Your task to perform on an android device: turn on airplane mode Image 0: 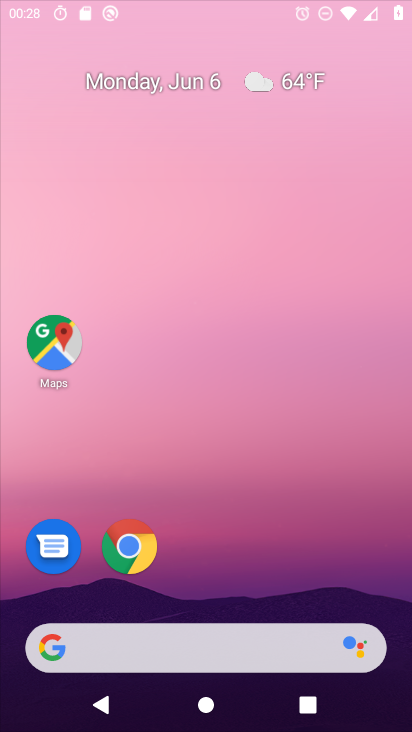
Step 0: click (312, 66)
Your task to perform on an android device: turn on airplane mode Image 1: 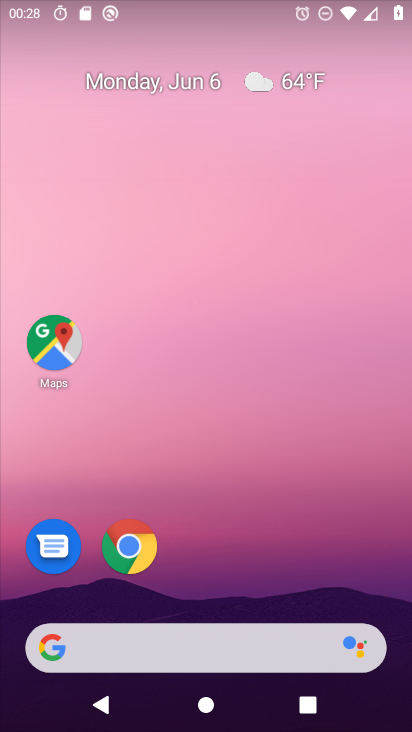
Step 1: press home button
Your task to perform on an android device: turn on airplane mode Image 2: 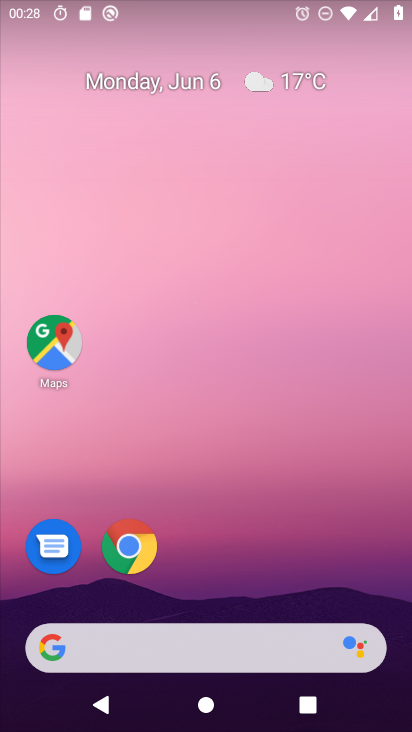
Step 2: drag from (196, 487) to (273, 141)
Your task to perform on an android device: turn on airplane mode Image 3: 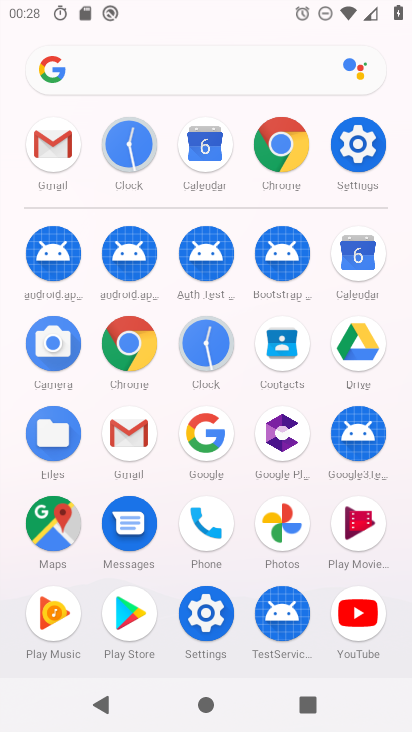
Step 3: click (350, 141)
Your task to perform on an android device: turn on airplane mode Image 4: 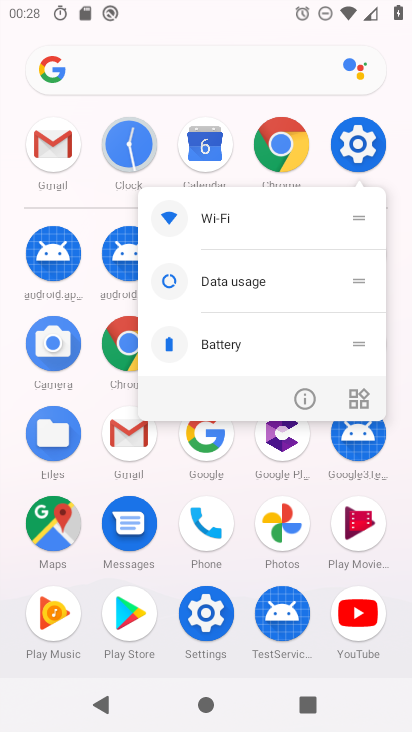
Step 4: click (307, 398)
Your task to perform on an android device: turn on airplane mode Image 5: 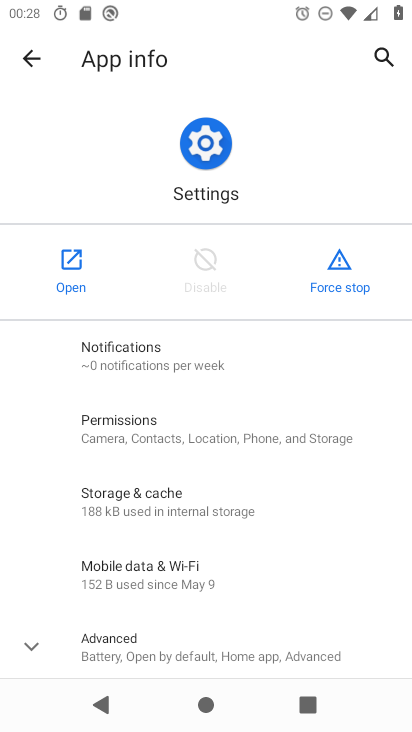
Step 5: click (68, 272)
Your task to perform on an android device: turn on airplane mode Image 6: 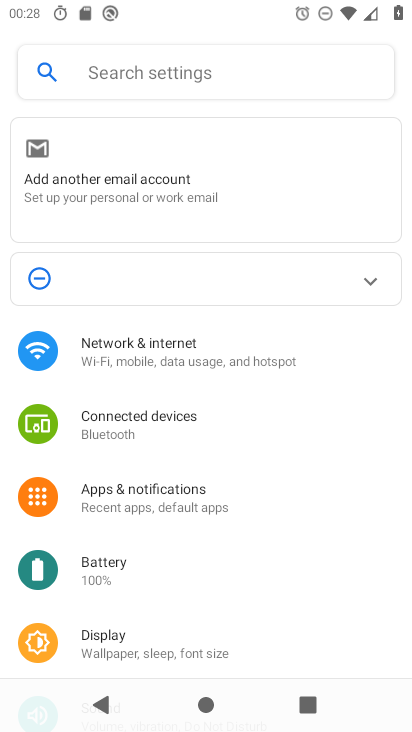
Step 6: click (194, 346)
Your task to perform on an android device: turn on airplane mode Image 7: 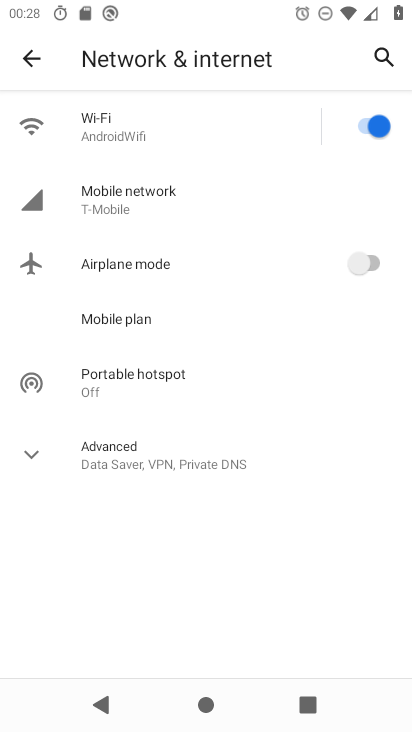
Step 7: click (236, 266)
Your task to perform on an android device: turn on airplane mode Image 8: 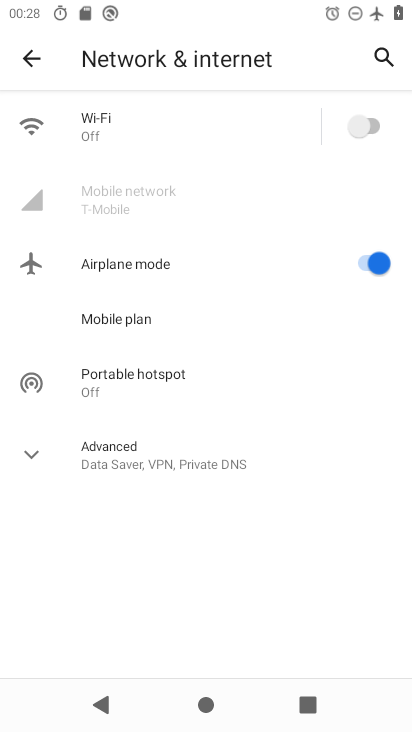
Step 8: task complete